Your task to perform on an android device: check android version Image 0: 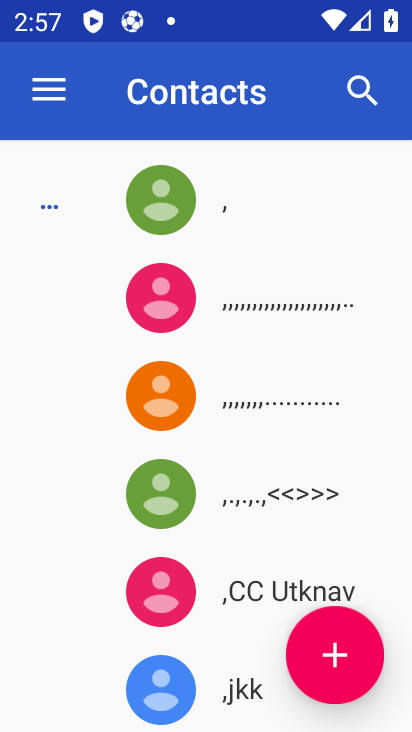
Step 0: press home button
Your task to perform on an android device: check android version Image 1: 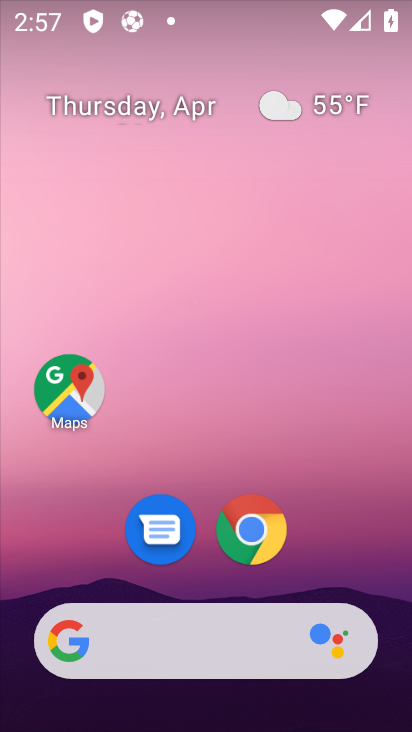
Step 1: drag from (234, 587) to (257, 231)
Your task to perform on an android device: check android version Image 2: 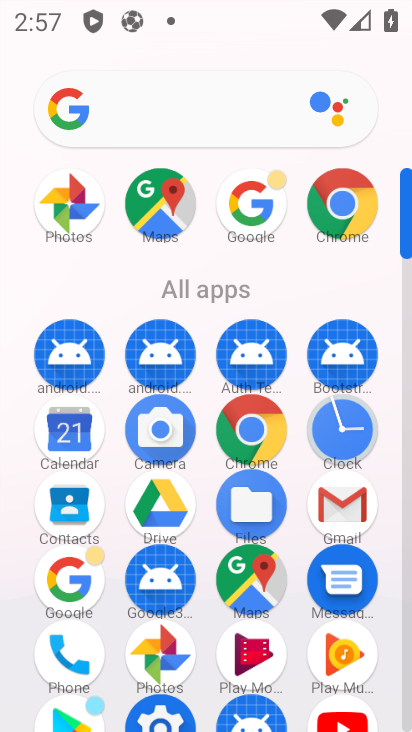
Step 2: click (162, 720)
Your task to perform on an android device: check android version Image 3: 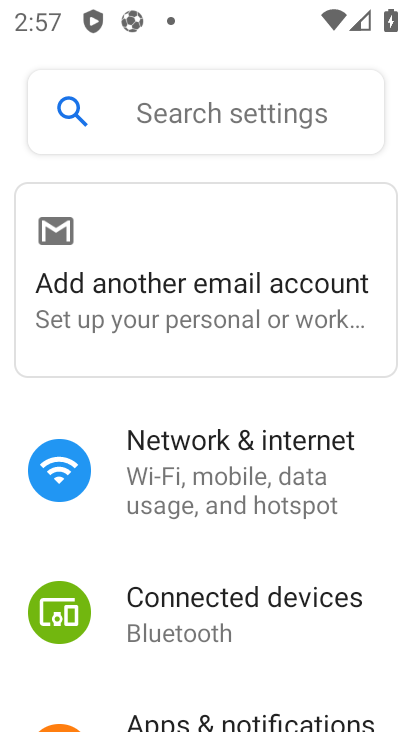
Step 3: drag from (148, 698) to (181, 250)
Your task to perform on an android device: check android version Image 4: 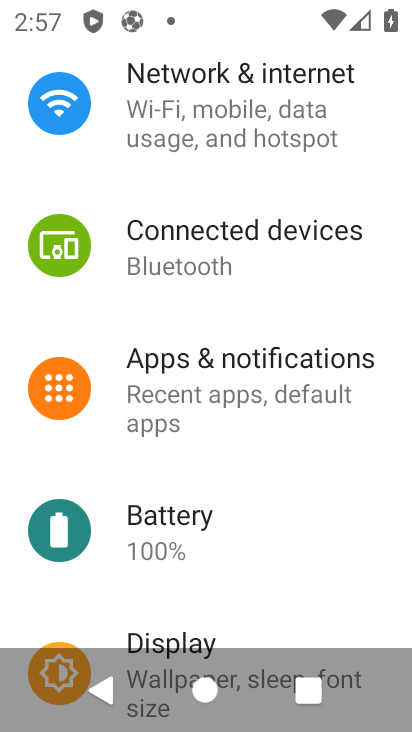
Step 4: drag from (193, 600) to (270, 200)
Your task to perform on an android device: check android version Image 5: 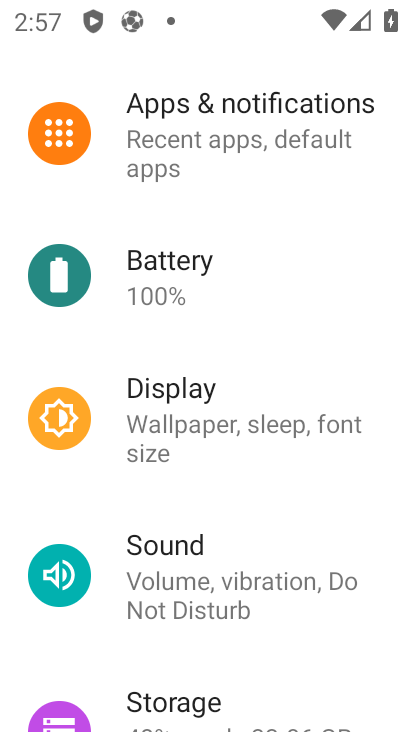
Step 5: drag from (182, 562) to (241, 196)
Your task to perform on an android device: check android version Image 6: 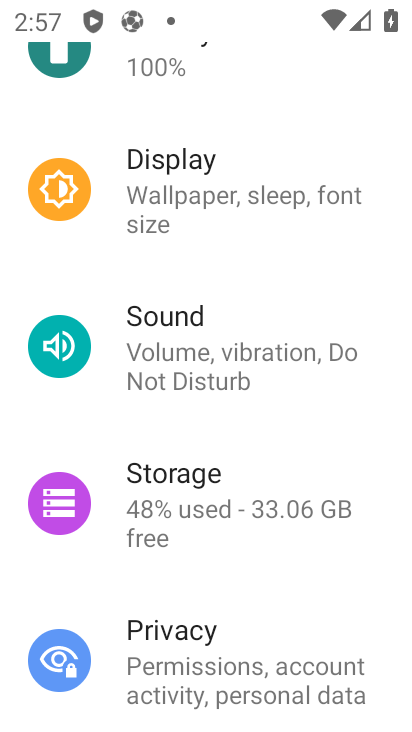
Step 6: drag from (209, 618) to (280, 270)
Your task to perform on an android device: check android version Image 7: 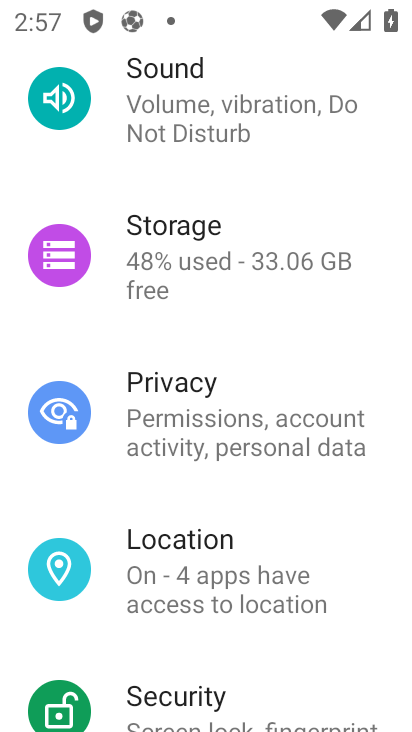
Step 7: drag from (169, 624) to (252, 212)
Your task to perform on an android device: check android version Image 8: 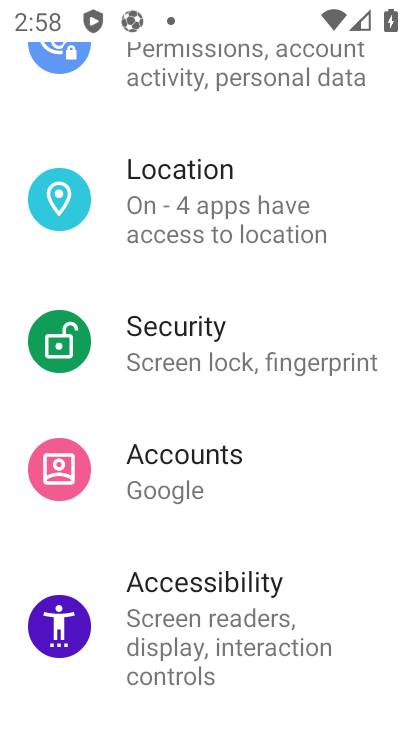
Step 8: drag from (220, 637) to (270, 297)
Your task to perform on an android device: check android version Image 9: 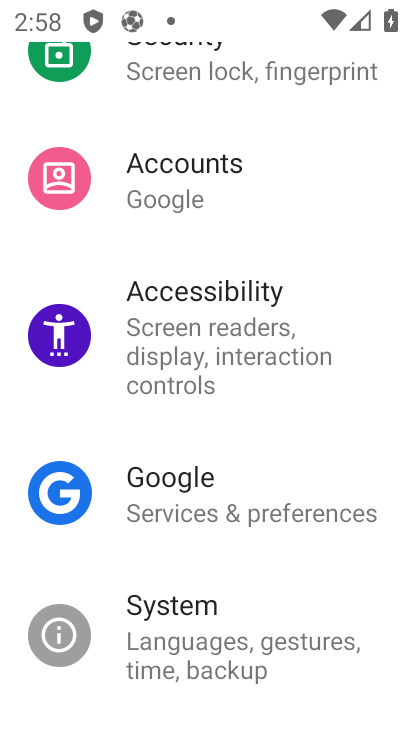
Step 9: drag from (199, 696) to (234, 383)
Your task to perform on an android device: check android version Image 10: 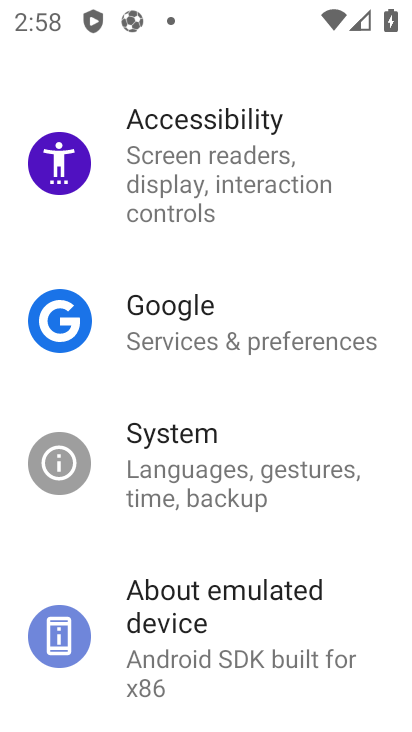
Step 10: click (162, 607)
Your task to perform on an android device: check android version Image 11: 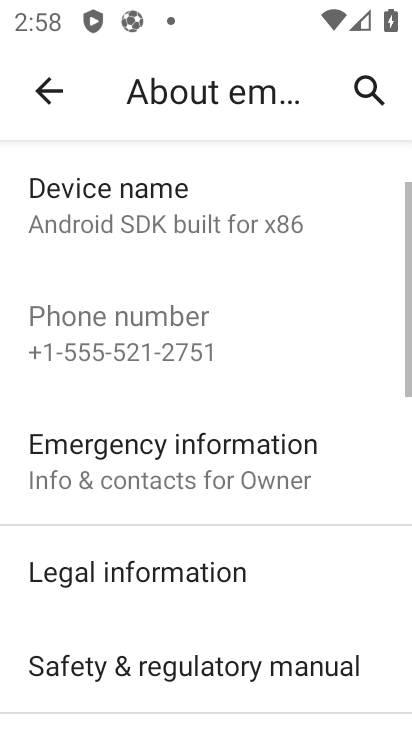
Step 11: drag from (166, 619) to (227, 285)
Your task to perform on an android device: check android version Image 12: 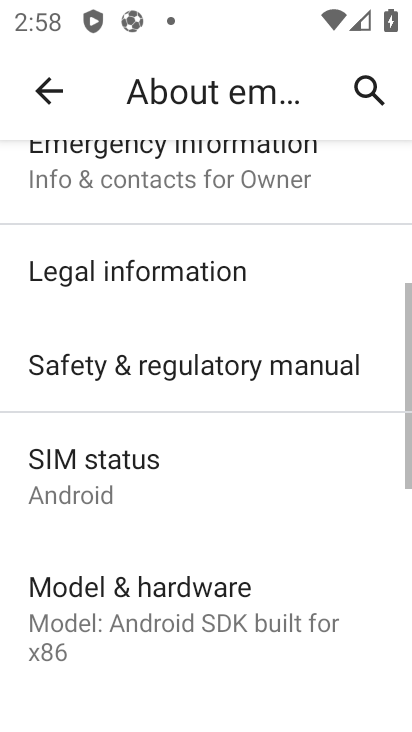
Step 12: drag from (146, 638) to (195, 310)
Your task to perform on an android device: check android version Image 13: 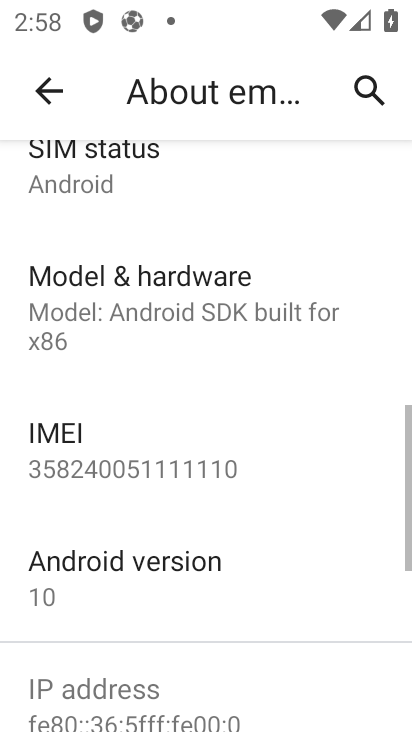
Step 13: click (127, 571)
Your task to perform on an android device: check android version Image 14: 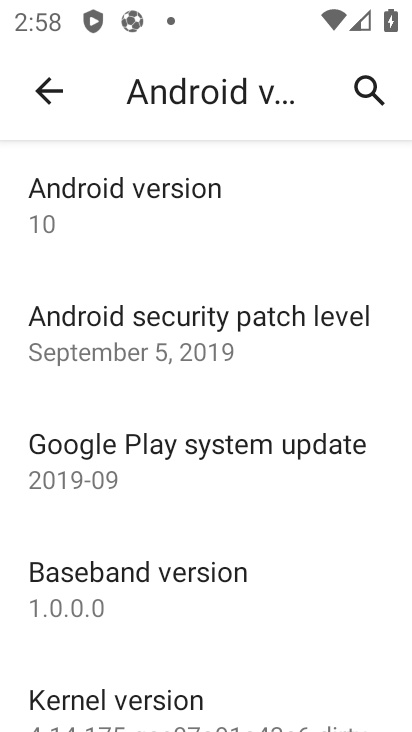
Step 14: task complete